Your task to perform on an android device: Open internet settings Image 0: 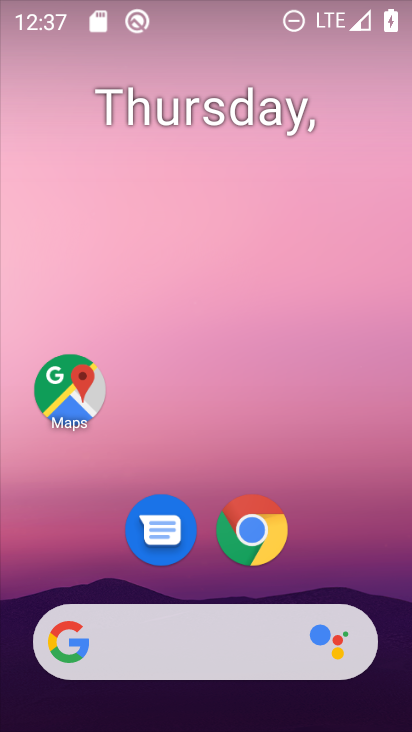
Step 0: drag from (261, 644) to (206, 26)
Your task to perform on an android device: Open internet settings Image 1: 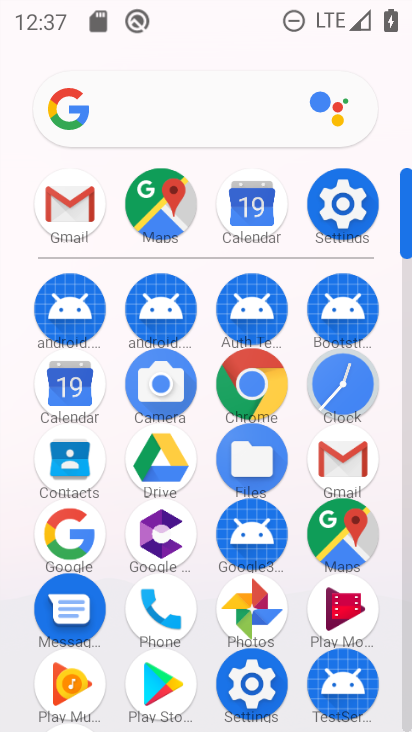
Step 1: click (311, 194)
Your task to perform on an android device: Open internet settings Image 2: 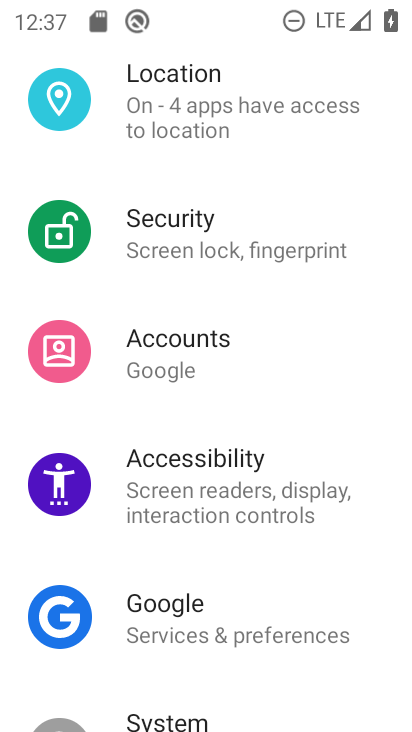
Step 2: drag from (153, 172) to (157, 500)
Your task to perform on an android device: Open internet settings Image 3: 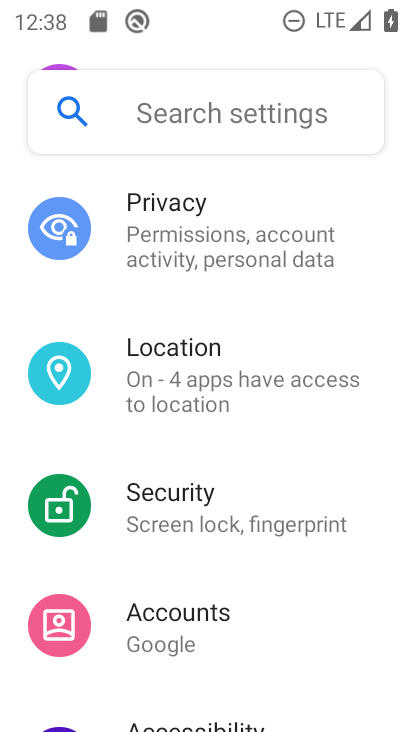
Step 3: drag from (282, 239) to (235, 730)
Your task to perform on an android device: Open internet settings Image 4: 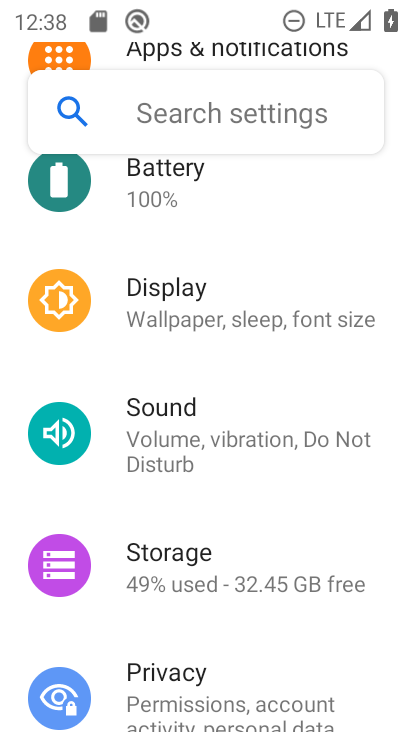
Step 4: drag from (226, 174) to (330, 633)
Your task to perform on an android device: Open internet settings Image 5: 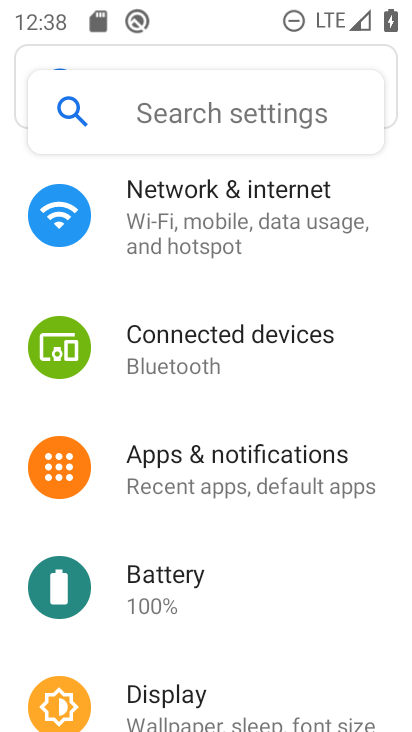
Step 5: click (181, 195)
Your task to perform on an android device: Open internet settings Image 6: 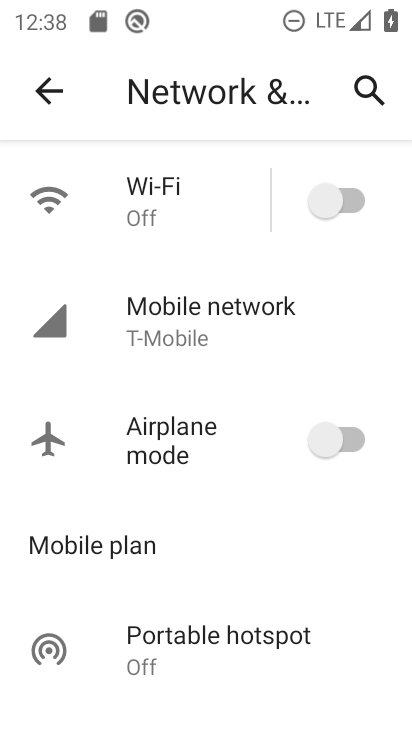
Step 6: task complete